Your task to perform on an android device: Open the stopwatch Image 0: 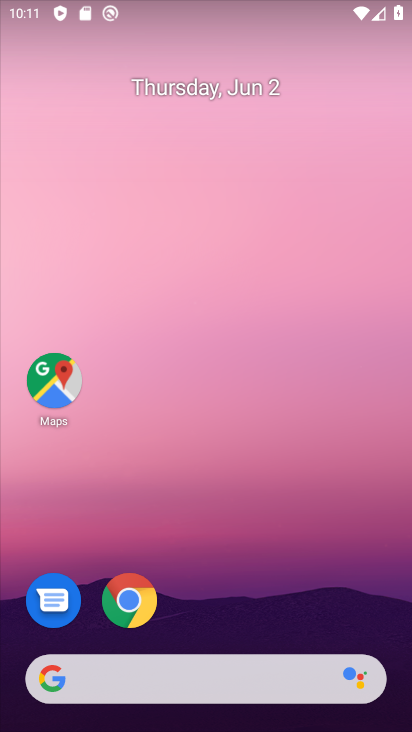
Step 0: drag from (223, 586) to (189, 124)
Your task to perform on an android device: Open the stopwatch Image 1: 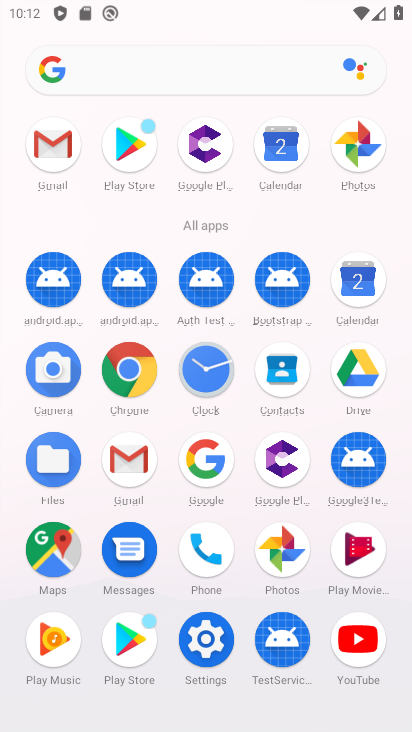
Step 1: click (206, 365)
Your task to perform on an android device: Open the stopwatch Image 2: 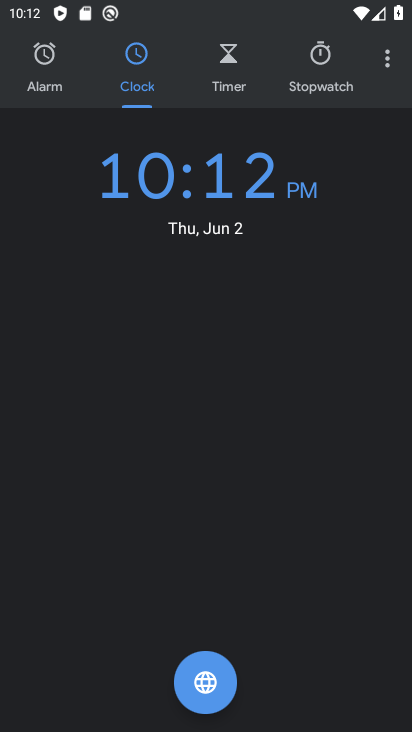
Step 2: click (317, 72)
Your task to perform on an android device: Open the stopwatch Image 3: 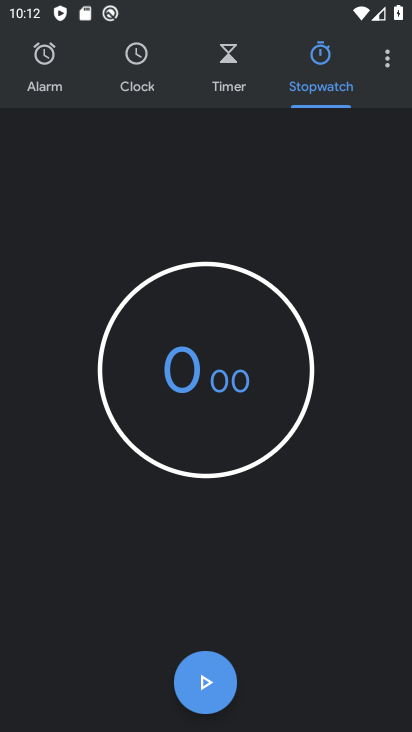
Step 3: click (203, 671)
Your task to perform on an android device: Open the stopwatch Image 4: 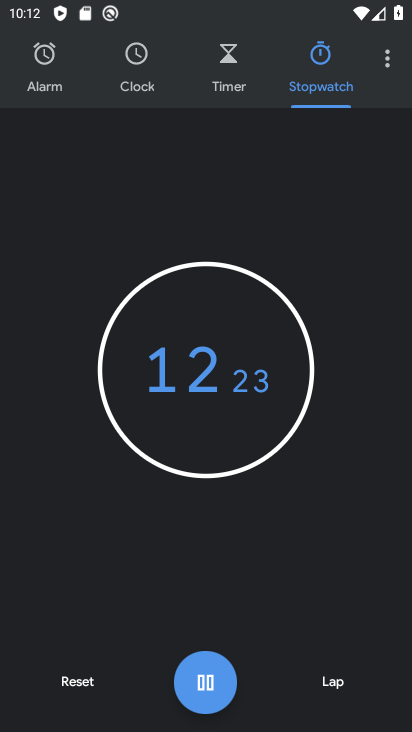
Step 4: task complete